Your task to perform on an android device: turn on airplane mode Image 0: 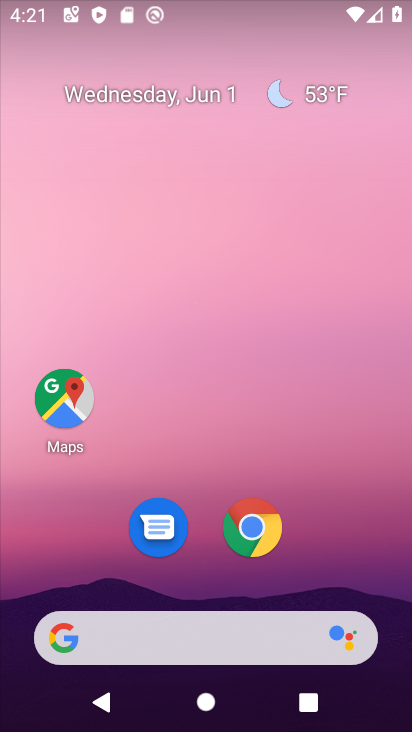
Step 0: drag from (324, 551) to (358, 101)
Your task to perform on an android device: turn on airplane mode Image 1: 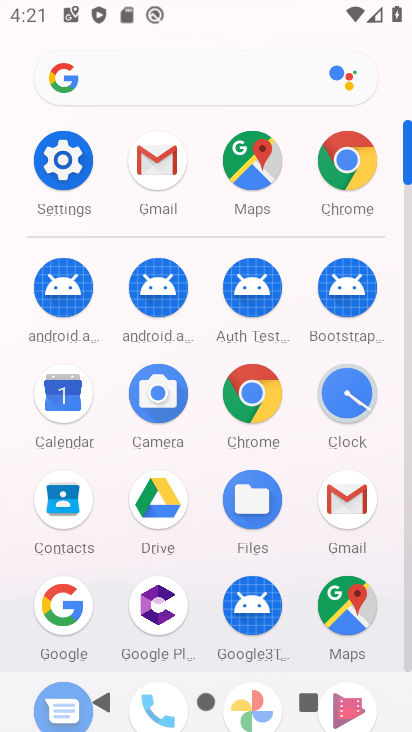
Step 1: drag from (269, 15) to (229, 557)
Your task to perform on an android device: turn on airplane mode Image 2: 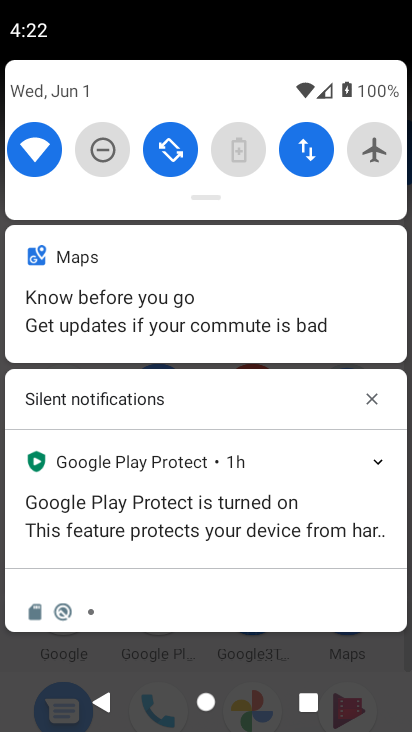
Step 2: click (381, 151)
Your task to perform on an android device: turn on airplane mode Image 3: 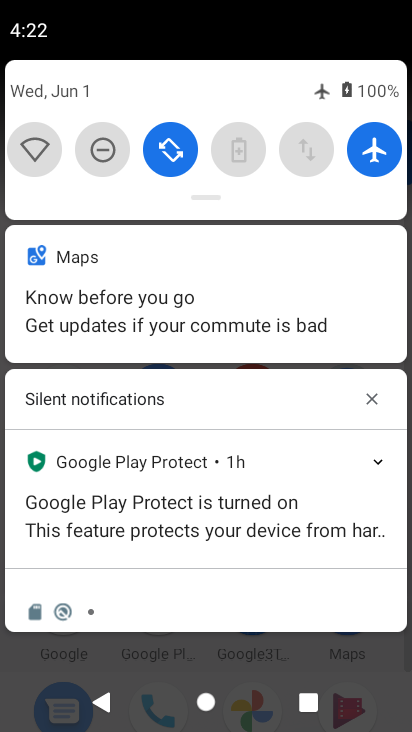
Step 3: task complete